Your task to perform on an android device: snooze an email in the gmail app Image 0: 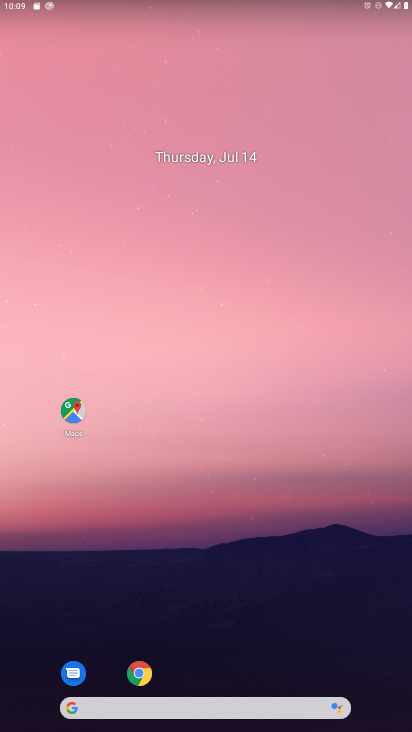
Step 0: drag from (199, 710) to (239, 336)
Your task to perform on an android device: snooze an email in the gmail app Image 1: 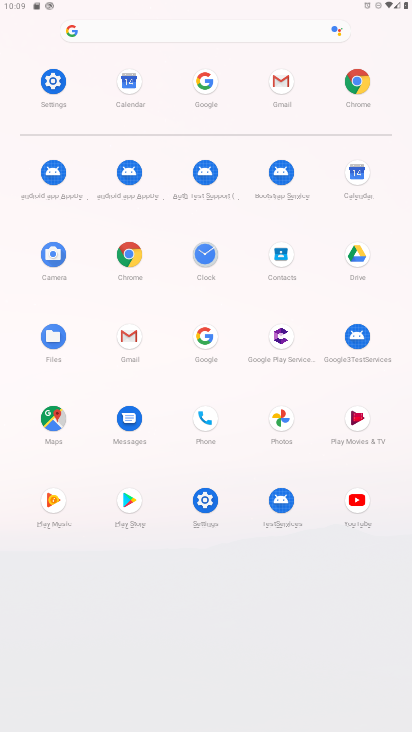
Step 1: click (283, 80)
Your task to perform on an android device: snooze an email in the gmail app Image 2: 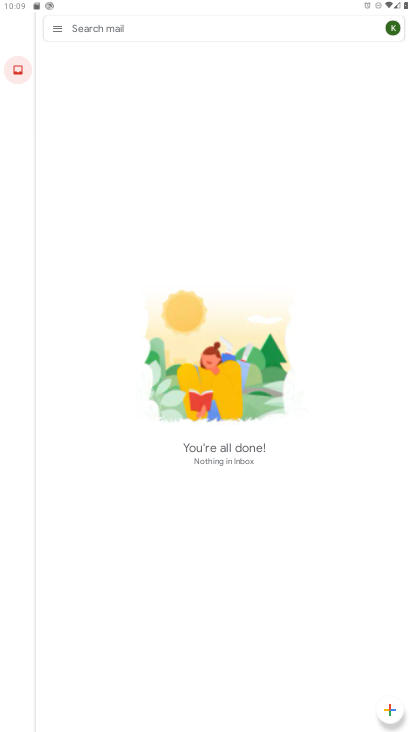
Step 2: click (60, 30)
Your task to perform on an android device: snooze an email in the gmail app Image 3: 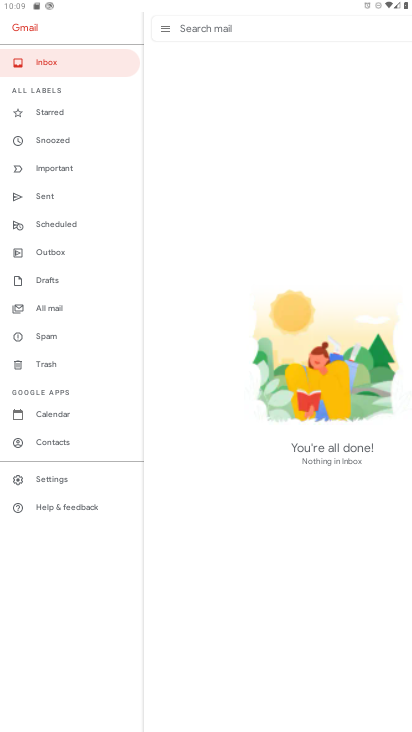
Step 3: click (53, 307)
Your task to perform on an android device: snooze an email in the gmail app Image 4: 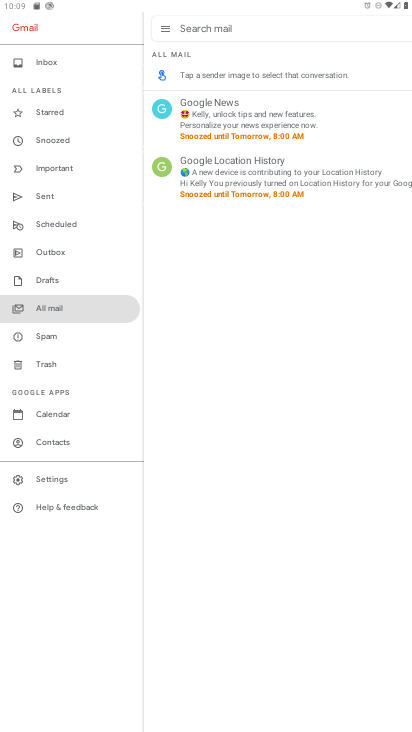
Step 4: click (211, 144)
Your task to perform on an android device: snooze an email in the gmail app Image 5: 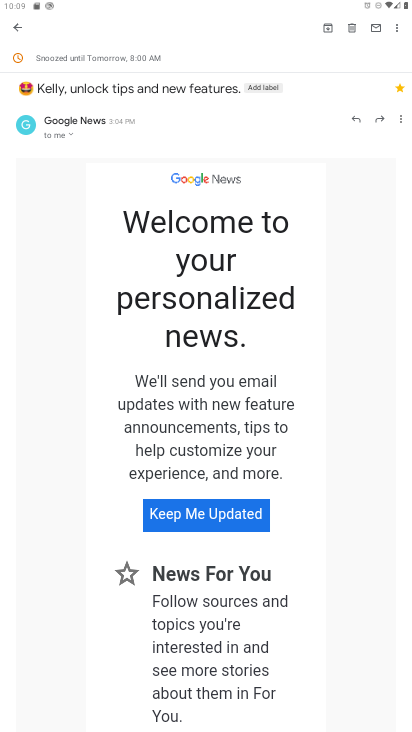
Step 5: task complete